Your task to perform on an android device: Open notification settings Image 0: 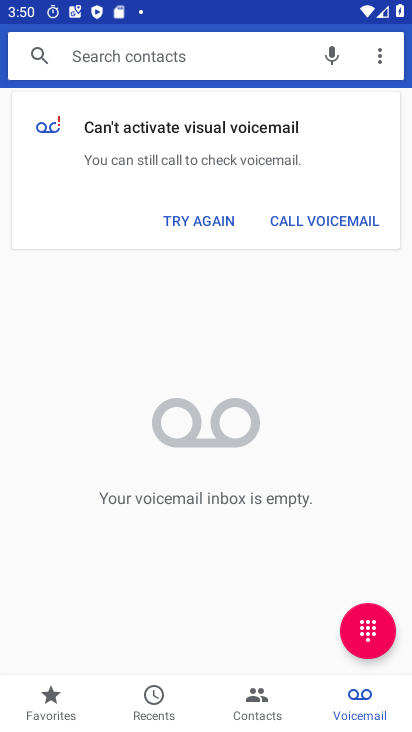
Step 0: press home button
Your task to perform on an android device: Open notification settings Image 1: 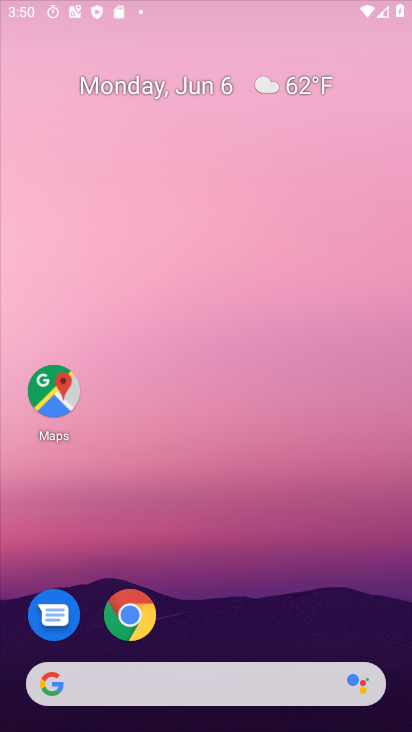
Step 1: drag from (259, 654) to (320, 42)
Your task to perform on an android device: Open notification settings Image 2: 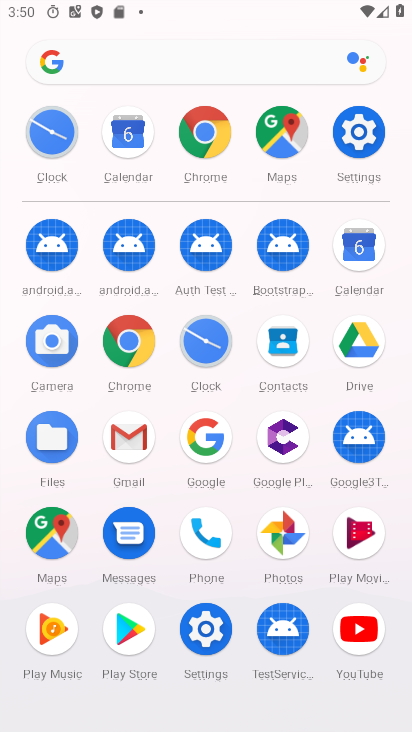
Step 2: click (361, 138)
Your task to perform on an android device: Open notification settings Image 3: 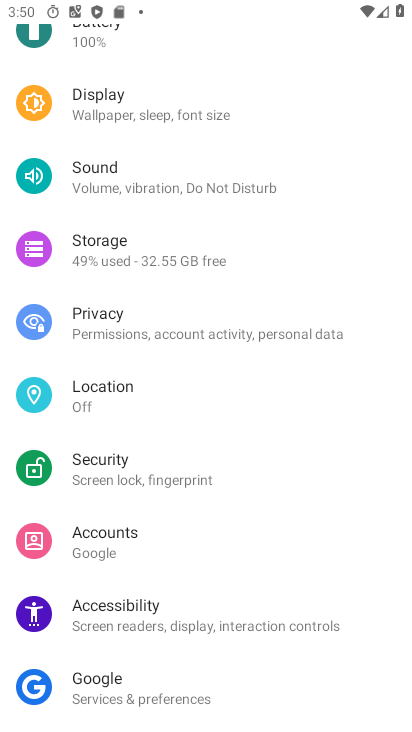
Step 3: drag from (264, 151) to (274, 652)
Your task to perform on an android device: Open notification settings Image 4: 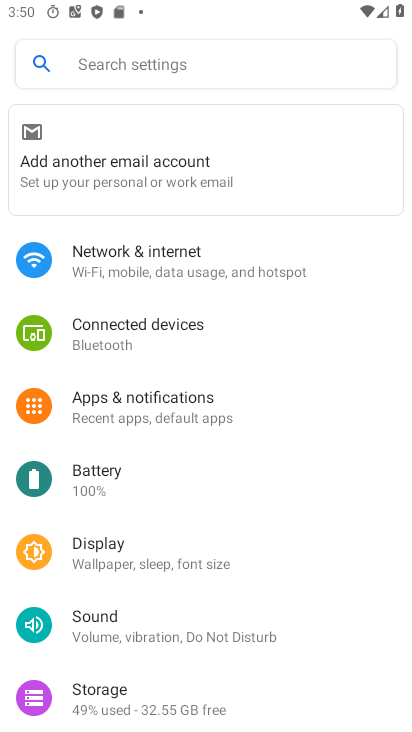
Step 4: click (209, 397)
Your task to perform on an android device: Open notification settings Image 5: 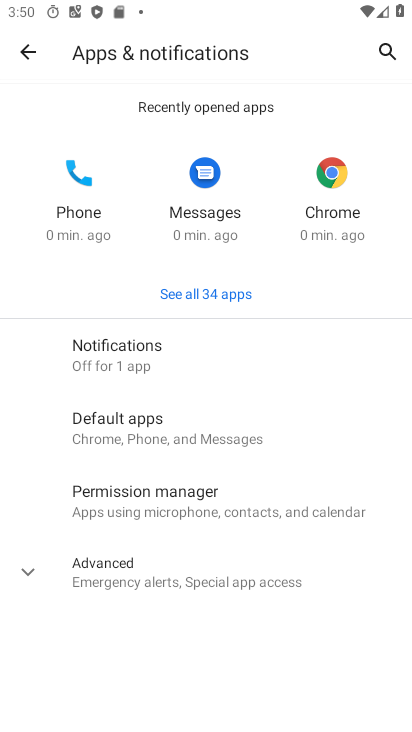
Step 5: click (186, 368)
Your task to perform on an android device: Open notification settings Image 6: 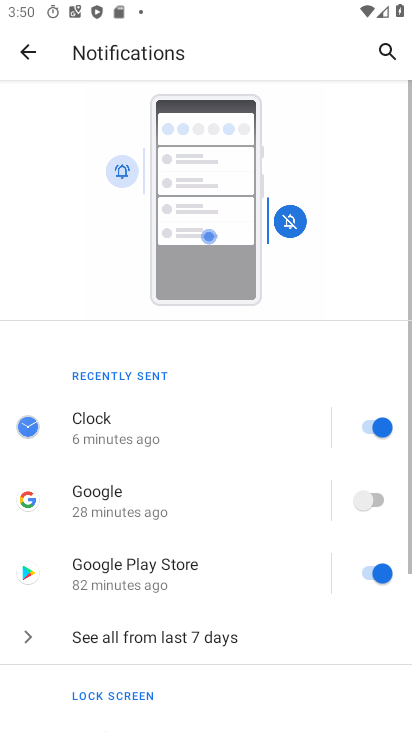
Step 6: task complete